Your task to perform on an android device: stop showing notifications on the lock screen Image 0: 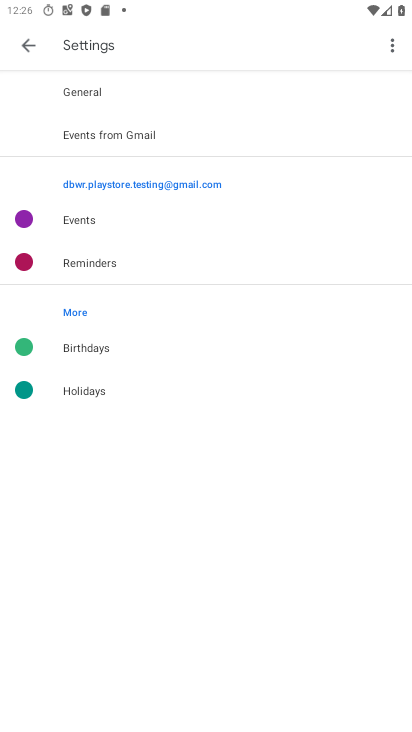
Step 0: press home button
Your task to perform on an android device: stop showing notifications on the lock screen Image 1: 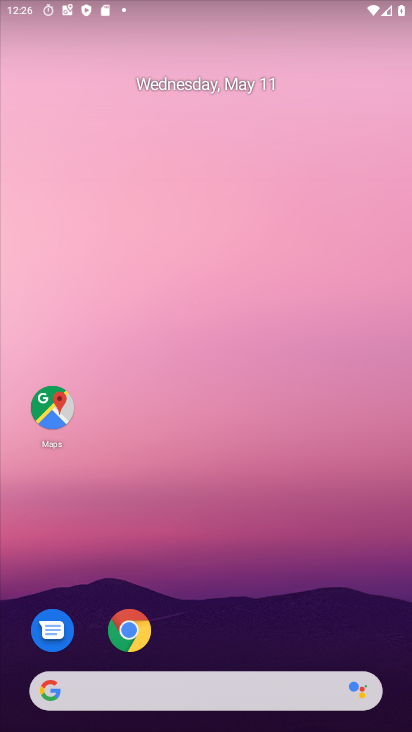
Step 1: drag from (308, 562) to (298, 37)
Your task to perform on an android device: stop showing notifications on the lock screen Image 2: 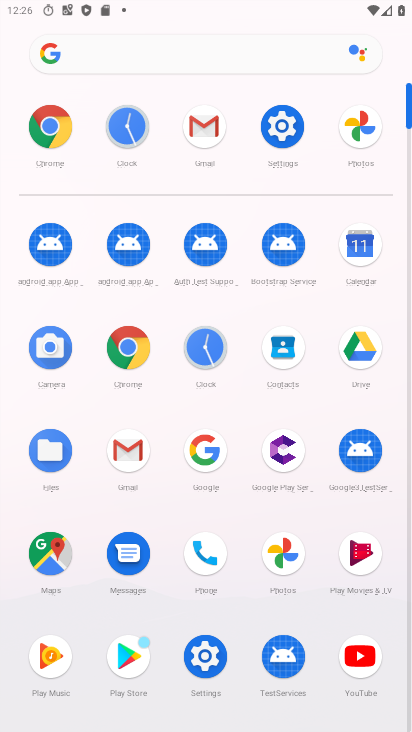
Step 2: click (279, 126)
Your task to perform on an android device: stop showing notifications on the lock screen Image 3: 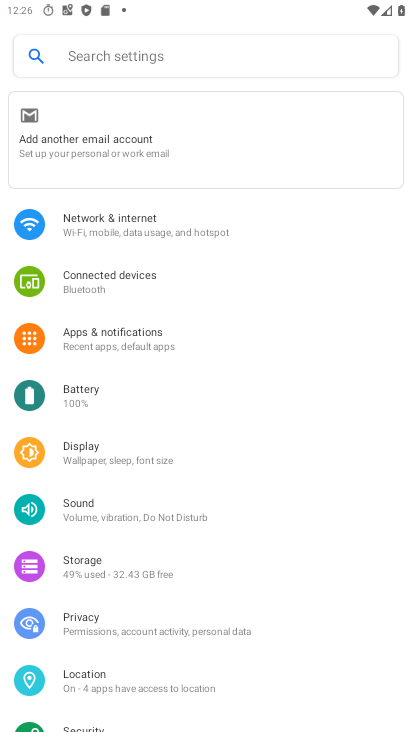
Step 3: drag from (231, 625) to (313, 664)
Your task to perform on an android device: stop showing notifications on the lock screen Image 4: 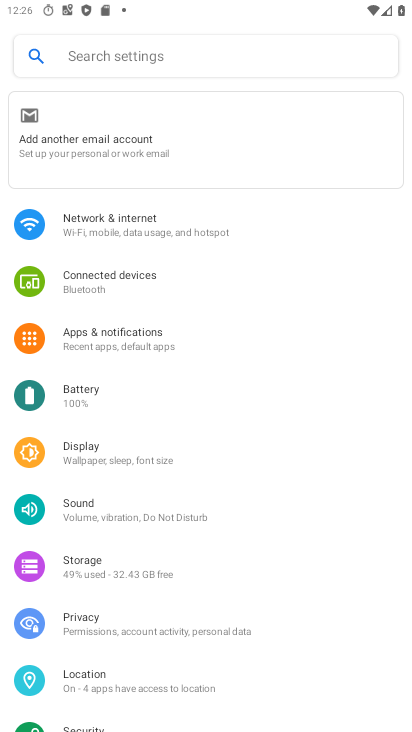
Step 4: click (126, 330)
Your task to perform on an android device: stop showing notifications on the lock screen Image 5: 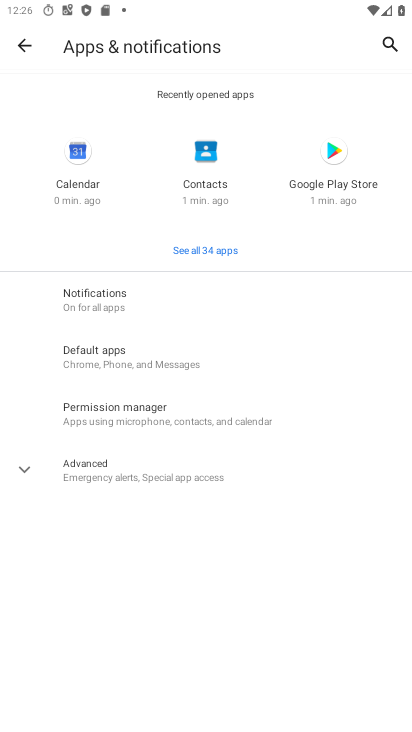
Step 5: click (148, 304)
Your task to perform on an android device: stop showing notifications on the lock screen Image 6: 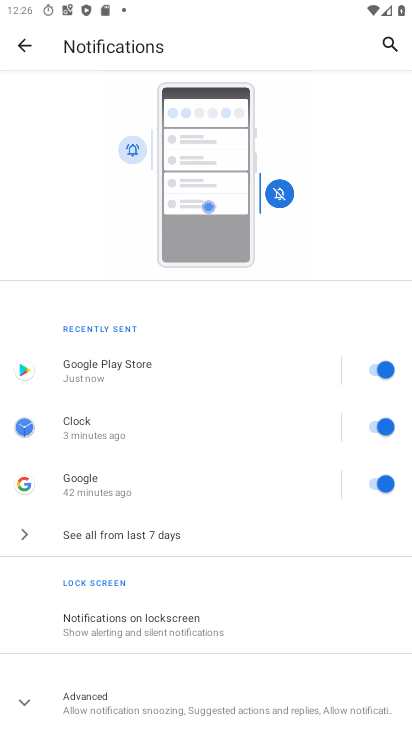
Step 6: click (169, 616)
Your task to perform on an android device: stop showing notifications on the lock screen Image 7: 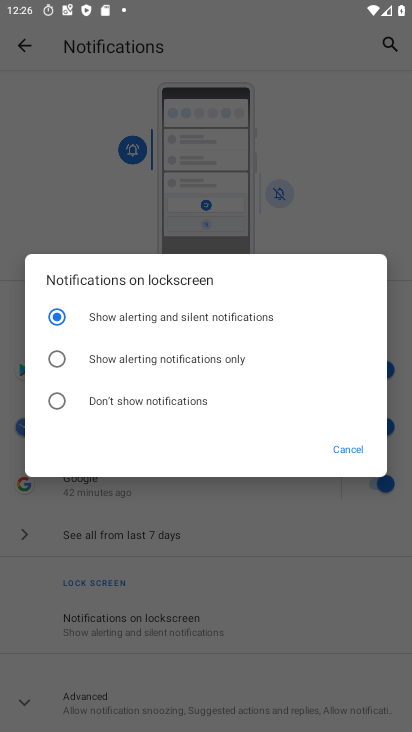
Step 7: click (165, 362)
Your task to perform on an android device: stop showing notifications on the lock screen Image 8: 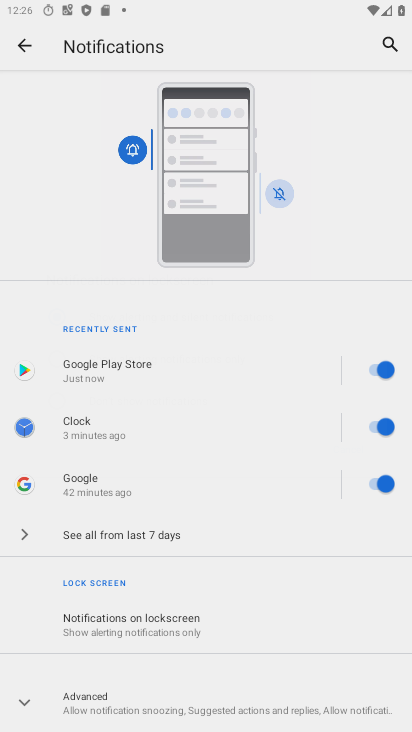
Step 8: click (163, 392)
Your task to perform on an android device: stop showing notifications on the lock screen Image 9: 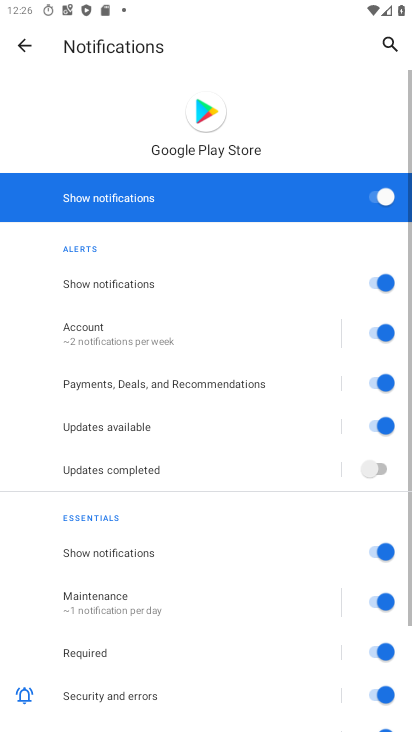
Step 9: click (22, 43)
Your task to perform on an android device: stop showing notifications on the lock screen Image 10: 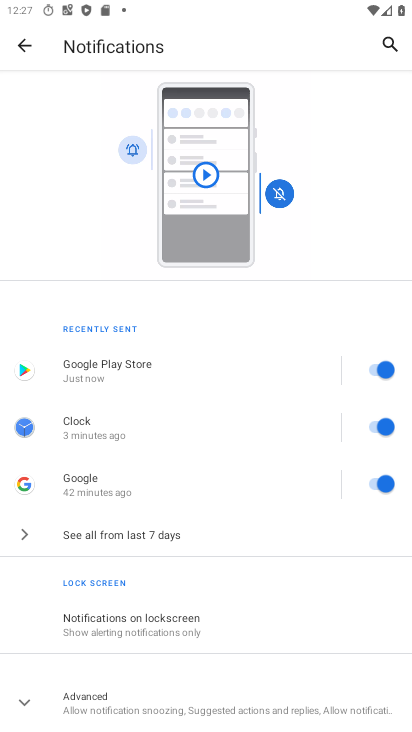
Step 10: click (182, 620)
Your task to perform on an android device: stop showing notifications on the lock screen Image 11: 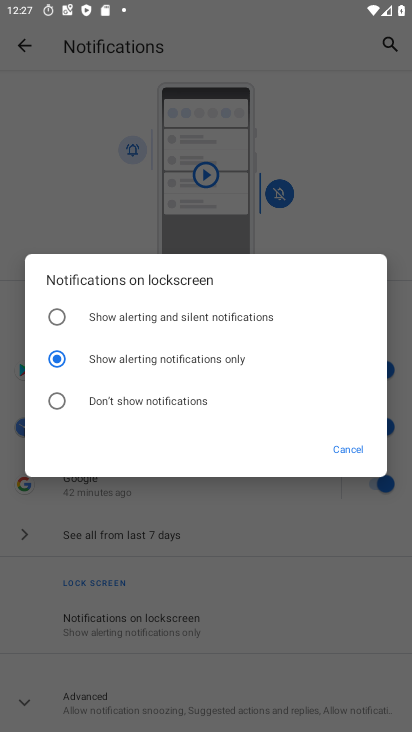
Step 11: click (179, 397)
Your task to perform on an android device: stop showing notifications on the lock screen Image 12: 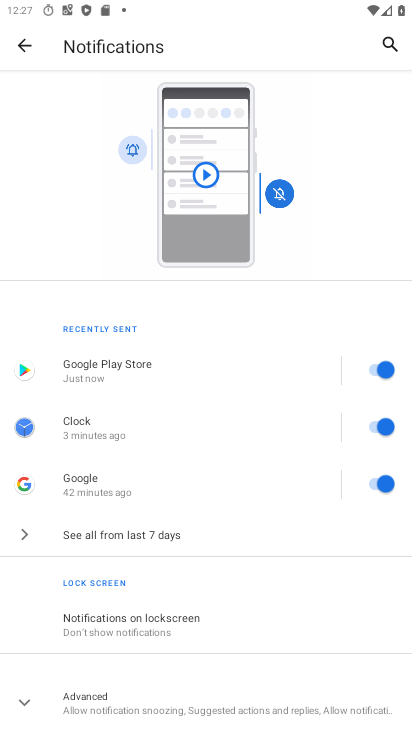
Step 12: task complete